Your task to perform on an android device: turn smart compose on in the gmail app Image 0: 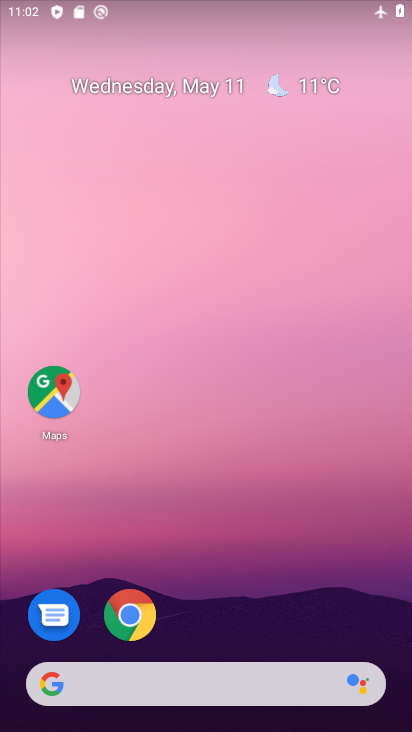
Step 0: drag from (218, 575) to (287, 5)
Your task to perform on an android device: turn smart compose on in the gmail app Image 1: 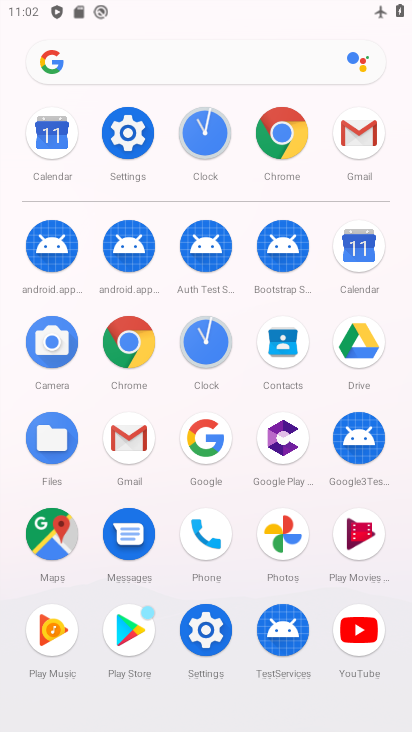
Step 1: click (358, 191)
Your task to perform on an android device: turn smart compose on in the gmail app Image 2: 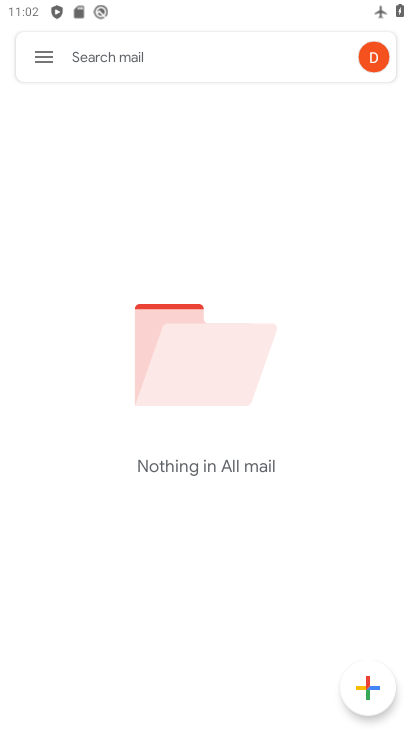
Step 2: click (45, 58)
Your task to perform on an android device: turn smart compose on in the gmail app Image 3: 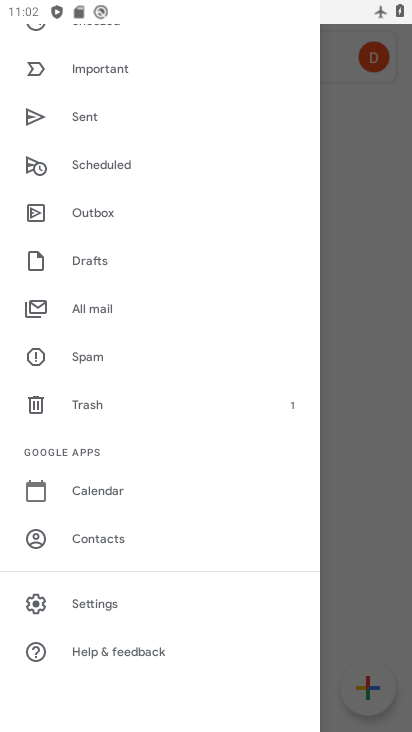
Step 3: click (115, 601)
Your task to perform on an android device: turn smart compose on in the gmail app Image 4: 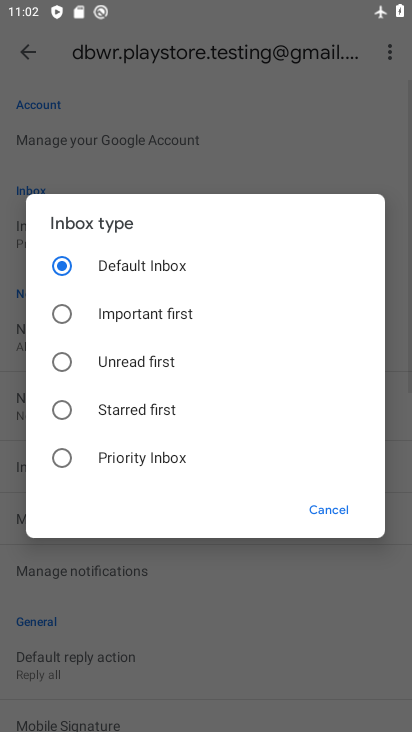
Step 4: click (324, 515)
Your task to perform on an android device: turn smart compose on in the gmail app Image 5: 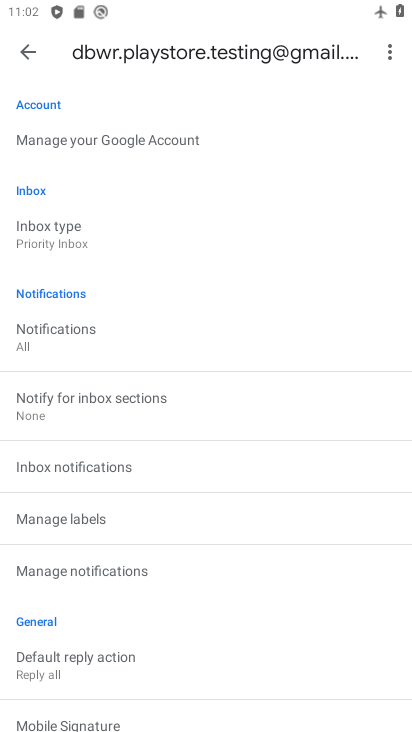
Step 5: task complete